Your task to perform on an android device: change your default location settings in chrome Image 0: 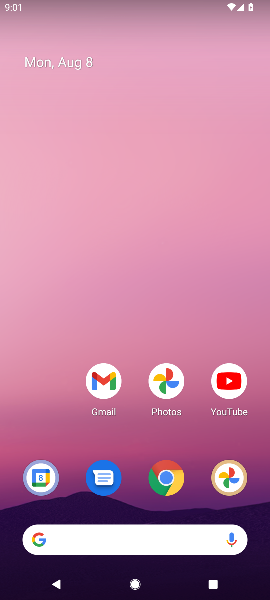
Step 0: press home button
Your task to perform on an android device: change your default location settings in chrome Image 1: 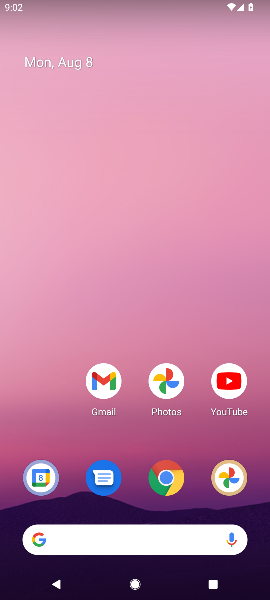
Step 1: click (169, 475)
Your task to perform on an android device: change your default location settings in chrome Image 2: 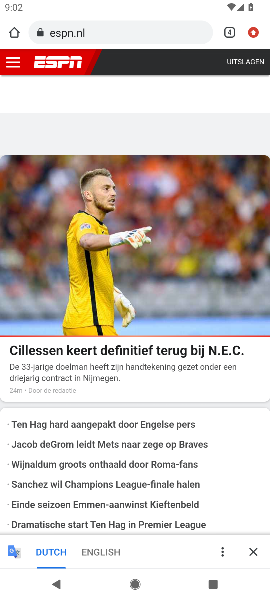
Step 2: drag from (250, 37) to (173, 438)
Your task to perform on an android device: change your default location settings in chrome Image 3: 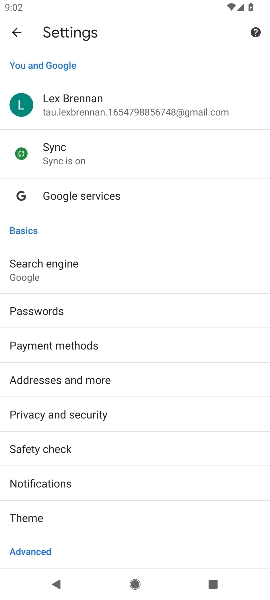
Step 3: drag from (106, 465) to (155, 188)
Your task to perform on an android device: change your default location settings in chrome Image 4: 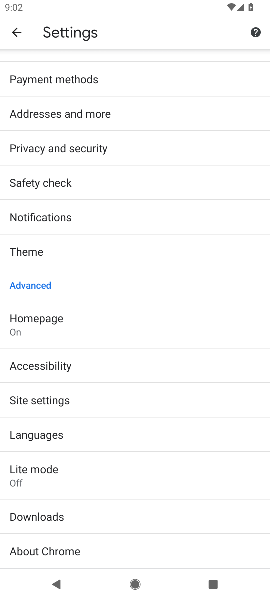
Step 4: click (40, 396)
Your task to perform on an android device: change your default location settings in chrome Image 5: 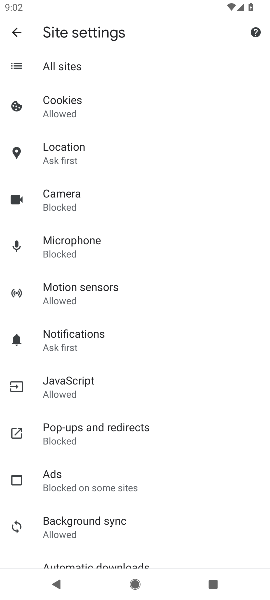
Step 5: click (66, 151)
Your task to perform on an android device: change your default location settings in chrome Image 6: 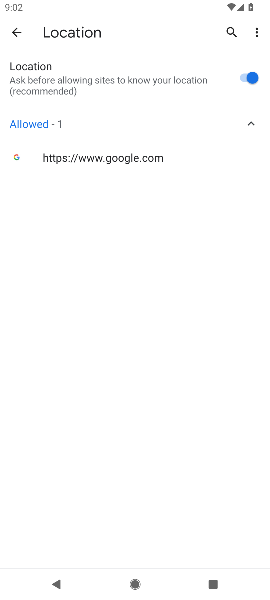
Step 6: click (248, 77)
Your task to perform on an android device: change your default location settings in chrome Image 7: 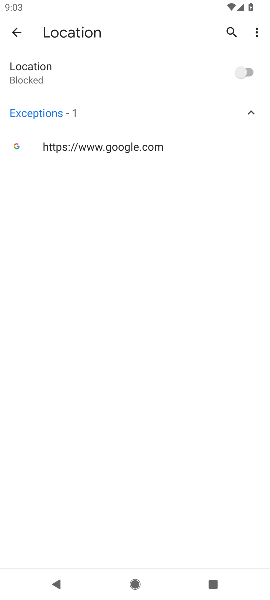
Step 7: task complete